Your task to perform on an android device: move a message to another label in the gmail app Image 0: 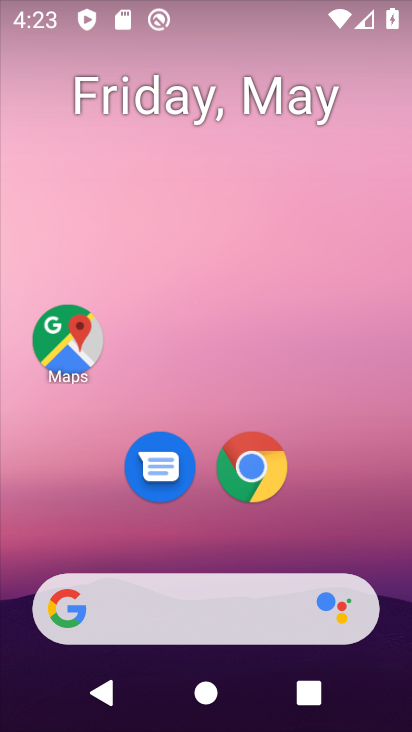
Step 0: drag from (343, 471) to (363, 99)
Your task to perform on an android device: move a message to another label in the gmail app Image 1: 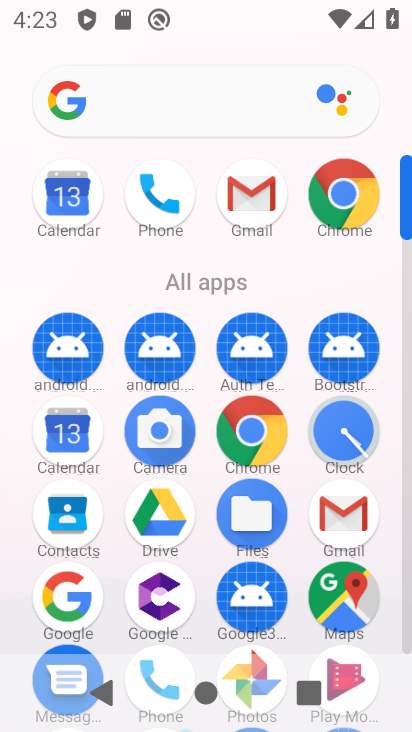
Step 1: click (266, 199)
Your task to perform on an android device: move a message to another label in the gmail app Image 2: 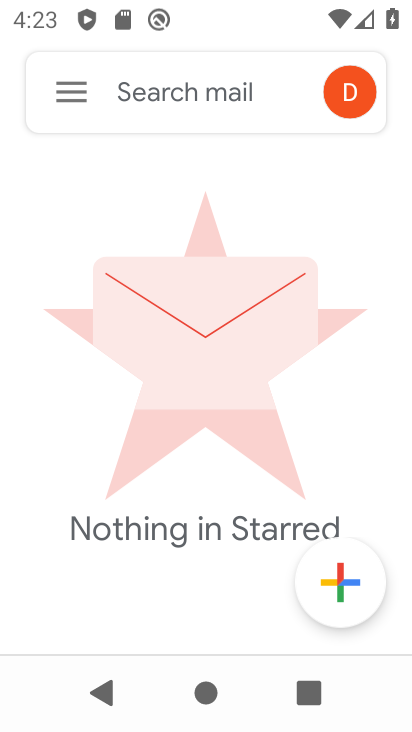
Step 2: click (42, 60)
Your task to perform on an android device: move a message to another label in the gmail app Image 3: 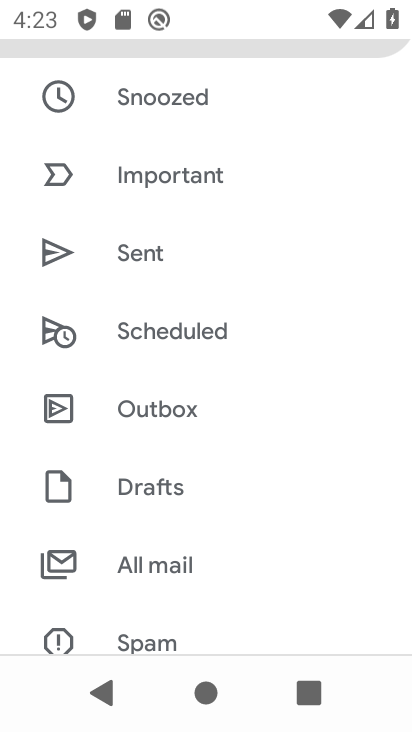
Step 3: drag from (176, 555) to (228, 302)
Your task to perform on an android device: move a message to another label in the gmail app Image 4: 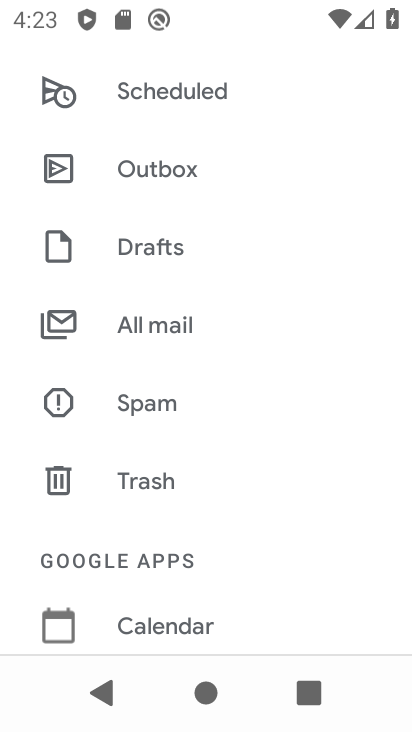
Step 4: click (167, 326)
Your task to perform on an android device: move a message to another label in the gmail app Image 5: 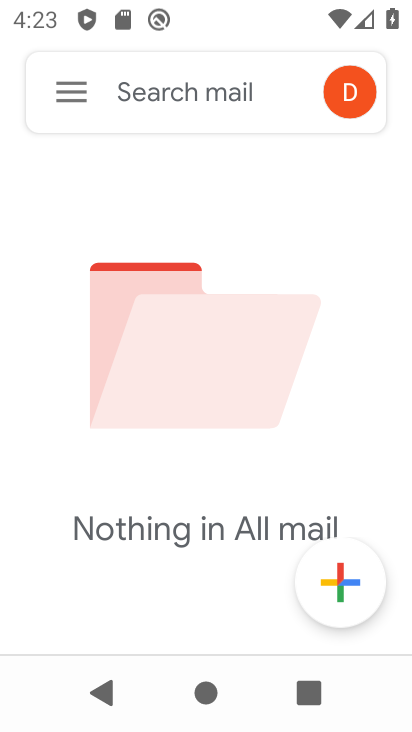
Step 5: task complete